Your task to perform on an android device: When is my next meeting? Image 0: 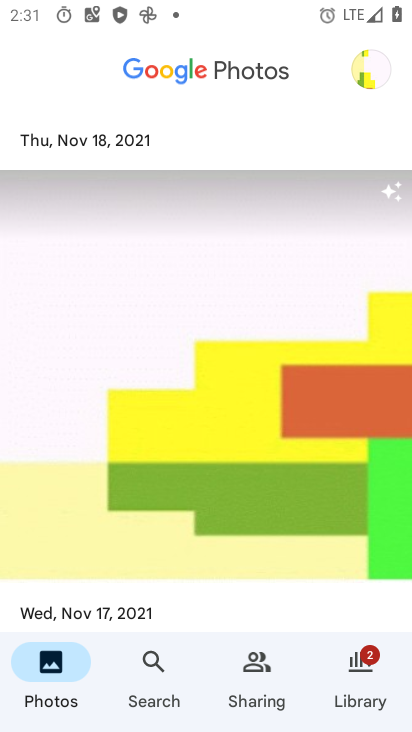
Step 0: press home button
Your task to perform on an android device: When is my next meeting? Image 1: 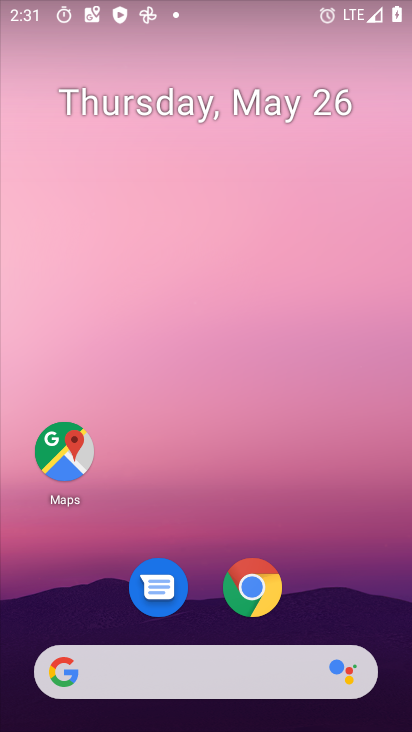
Step 1: drag from (337, 601) to (376, 137)
Your task to perform on an android device: When is my next meeting? Image 2: 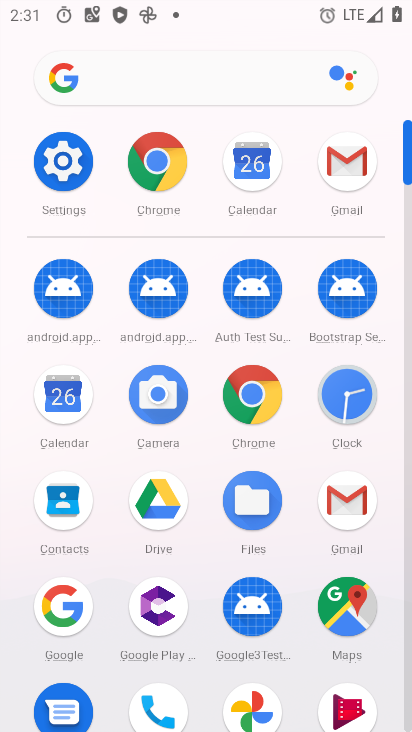
Step 2: click (70, 409)
Your task to perform on an android device: When is my next meeting? Image 3: 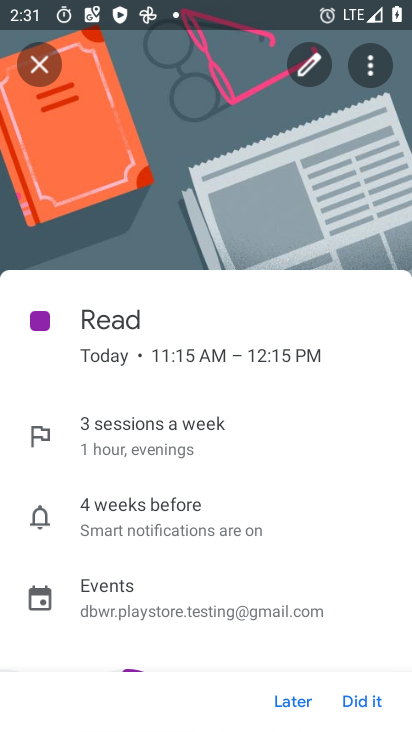
Step 3: task complete